Your task to perform on an android device: turn off wifi Image 0: 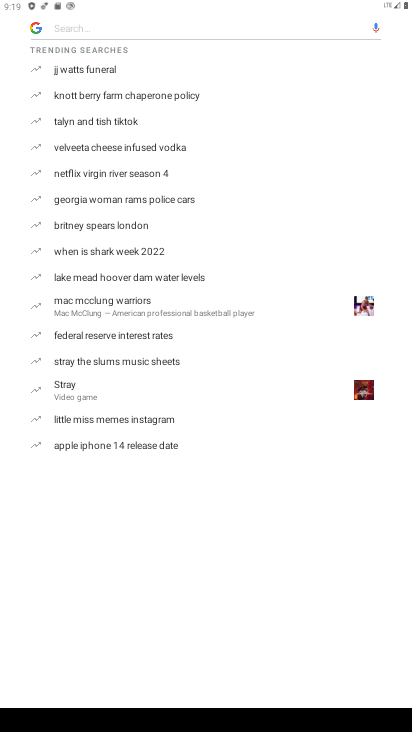
Step 0: press home button
Your task to perform on an android device: turn off wifi Image 1: 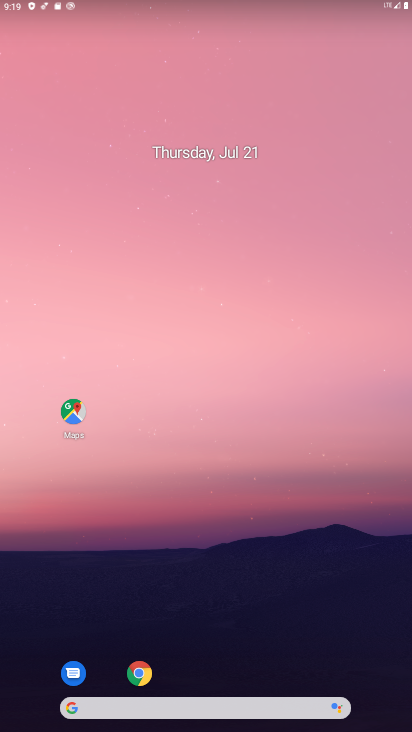
Step 1: drag from (206, 638) to (235, 171)
Your task to perform on an android device: turn off wifi Image 2: 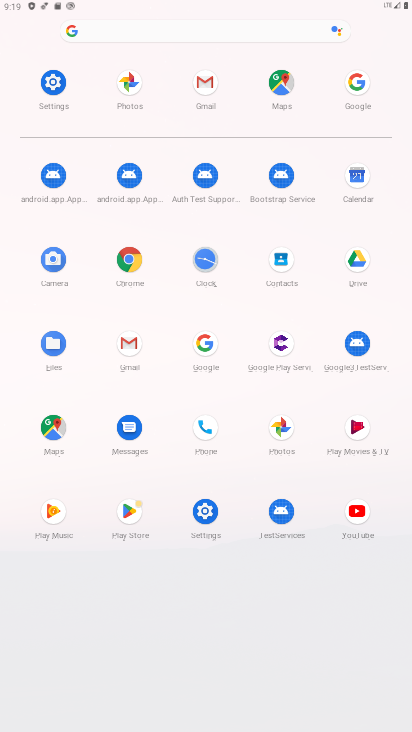
Step 2: click (67, 100)
Your task to perform on an android device: turn off wifi Image 3: 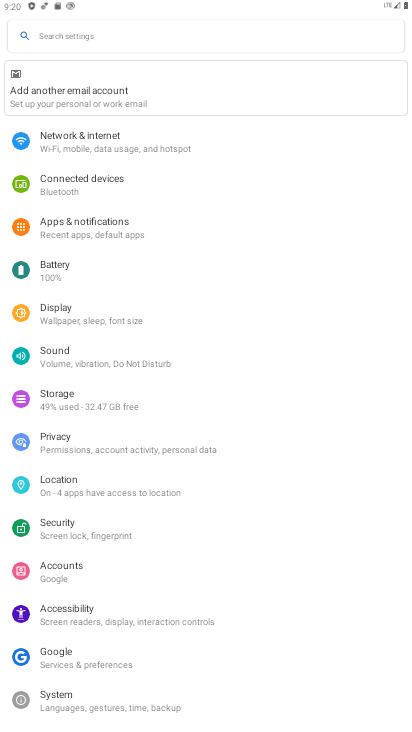
Step 3: click (78, 157)
Your task to perform on an android device: turn off wifi Image 4: 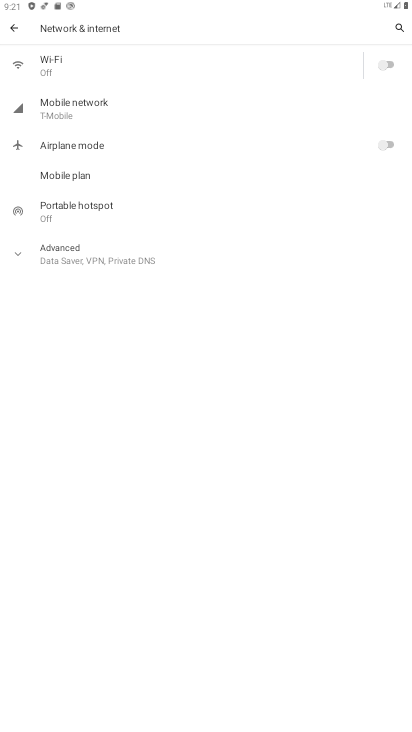
Step 4: task complete